Your task to perform on an android device: turn off airplane mode Image 0: 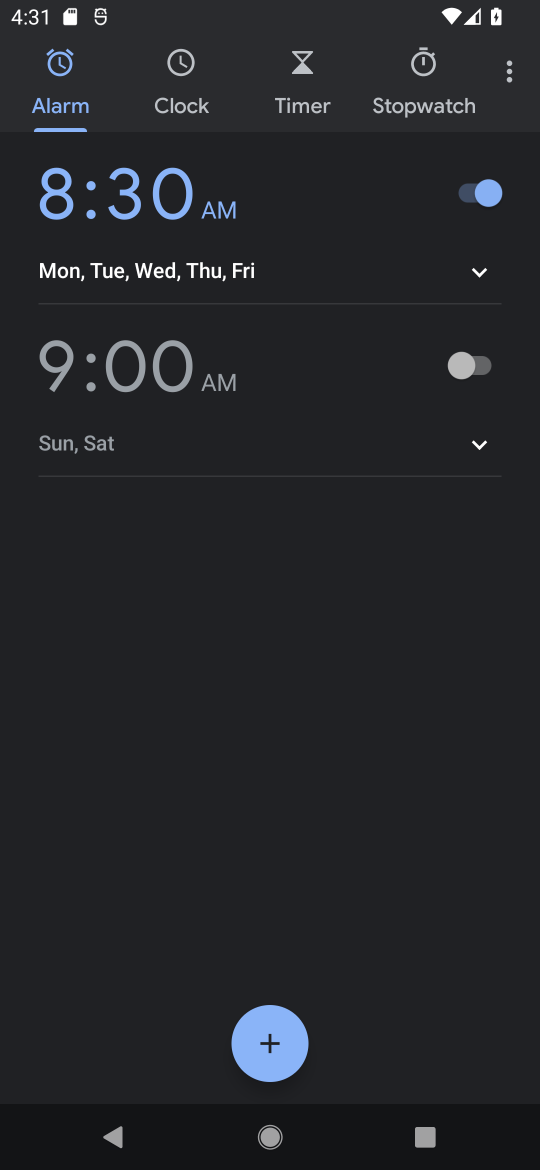
Step 0: press home button
Your task to perform on an android device: turn off airplane mode Image 1: 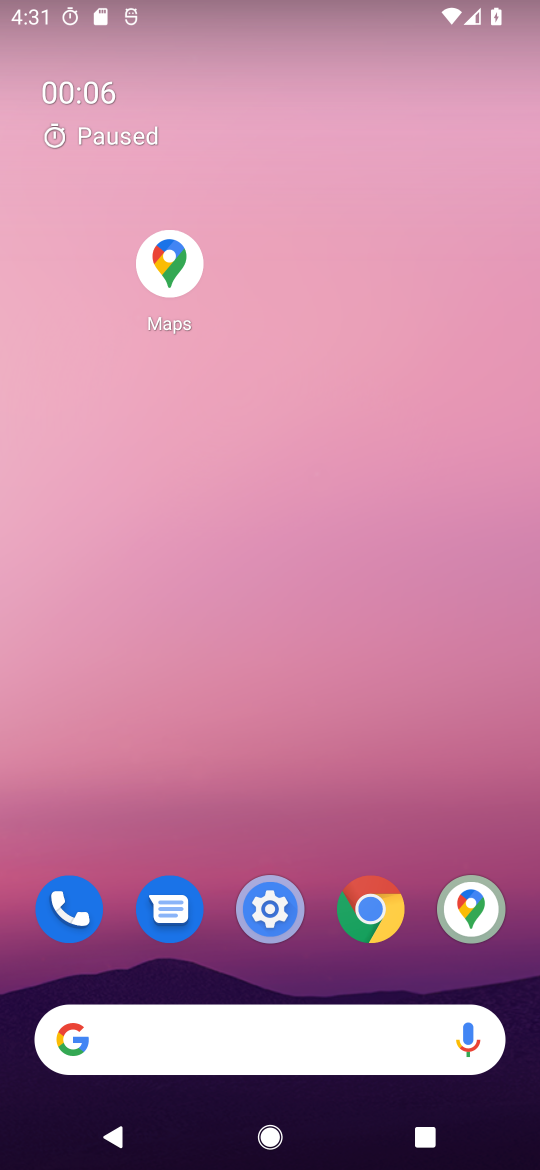
Step 1: click (283, 905)
Your task to perform on an android device: turn off airplane mode Image 2: 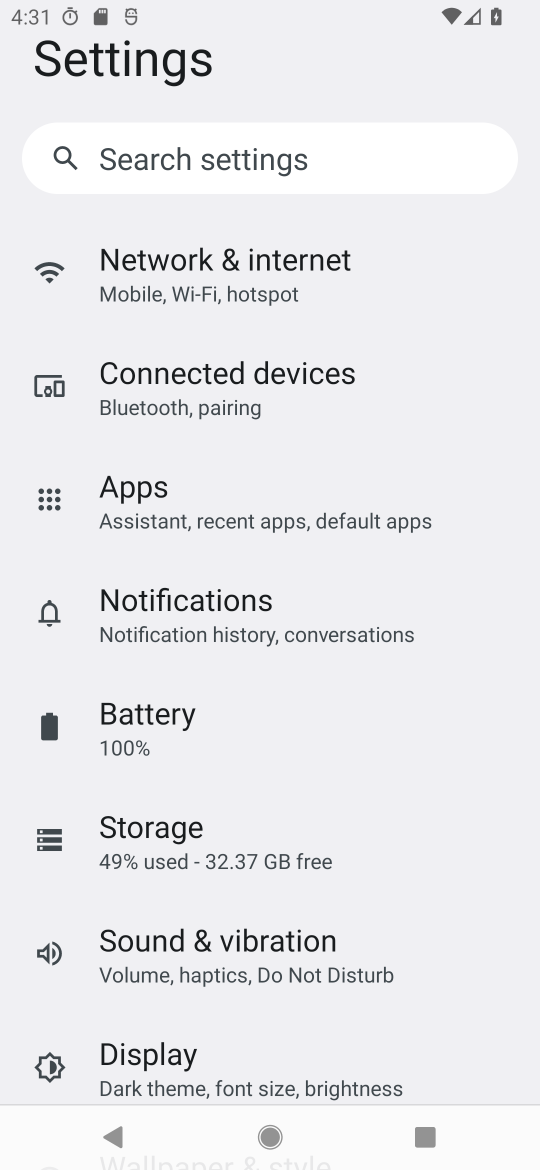
Step 2: click (211, 261)
Your task to perform on an android device: turn off airplane mode Image 3: 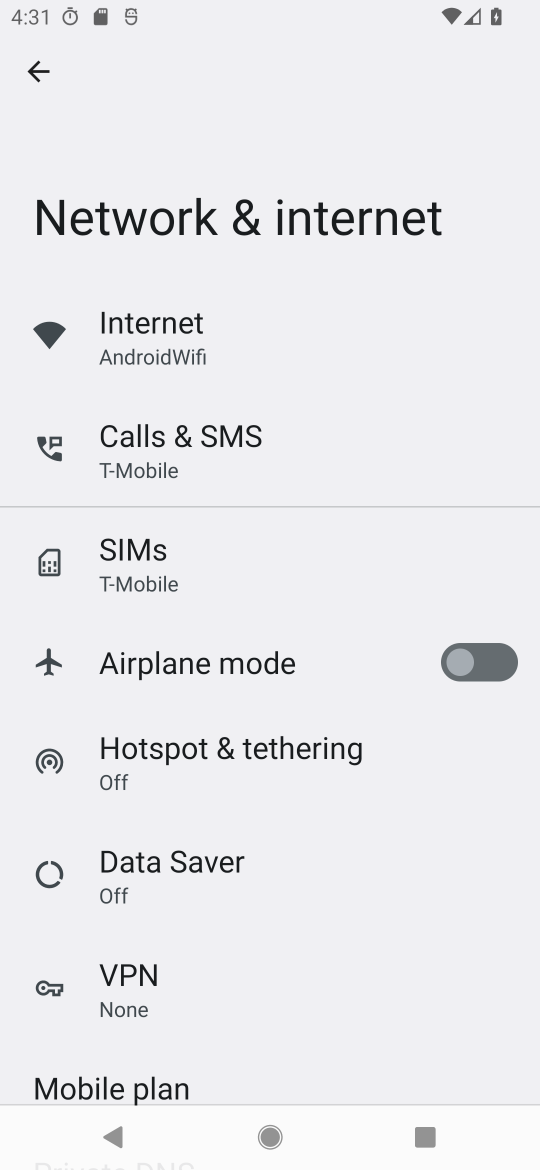
Step 3: task complete